Your task to perform on an android device: Search for sushi restaurants on Maps Image 0: 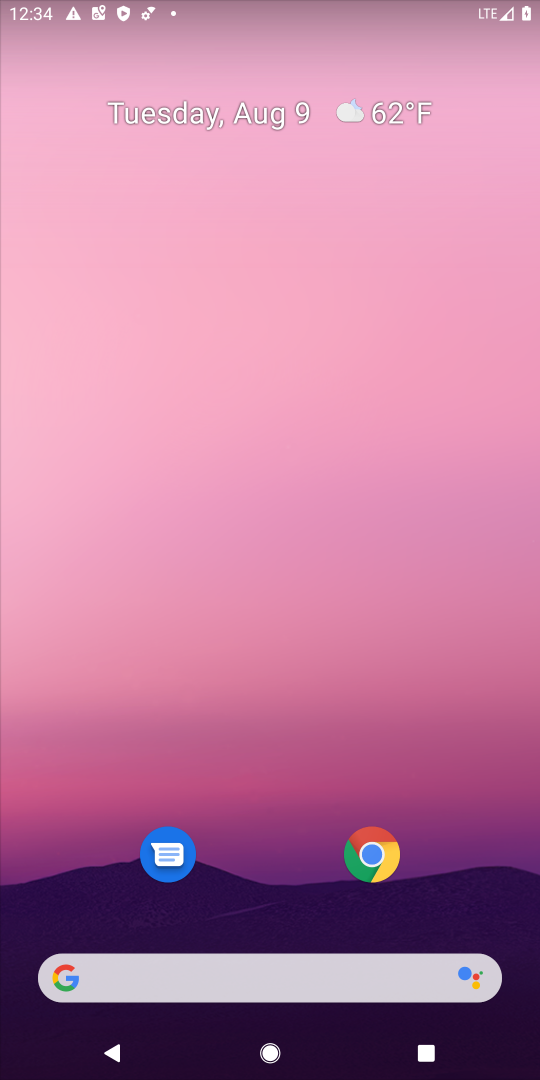
Step 0: drag from (261, 894) to (357, 7)
Your task to perform on an android device: Search for sushi restaurants on Maps Image 1: 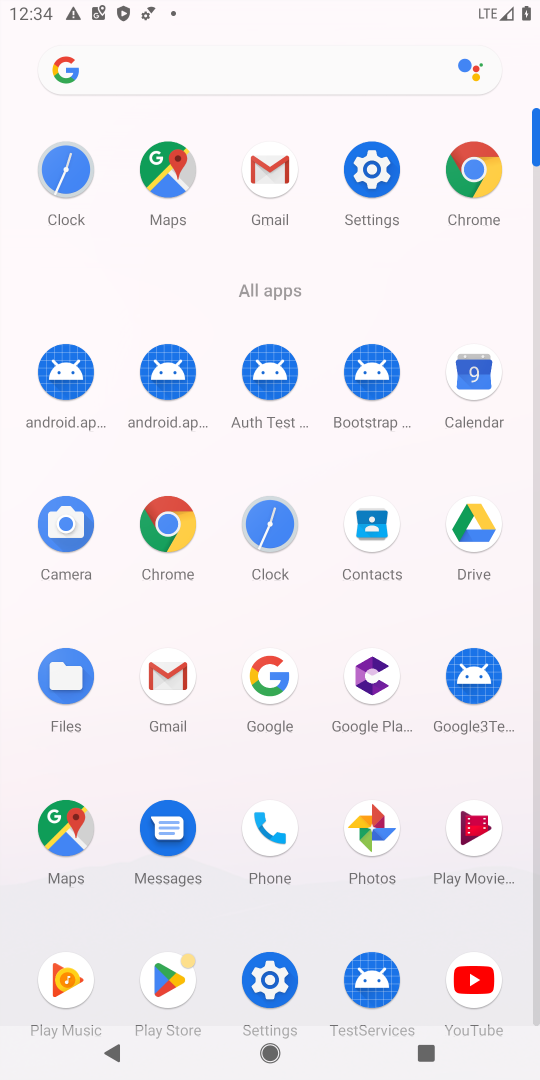
Step 1: click (172, 173)
Your task to perform on an android device: Search for sushi restaurants on Maps Image 2: 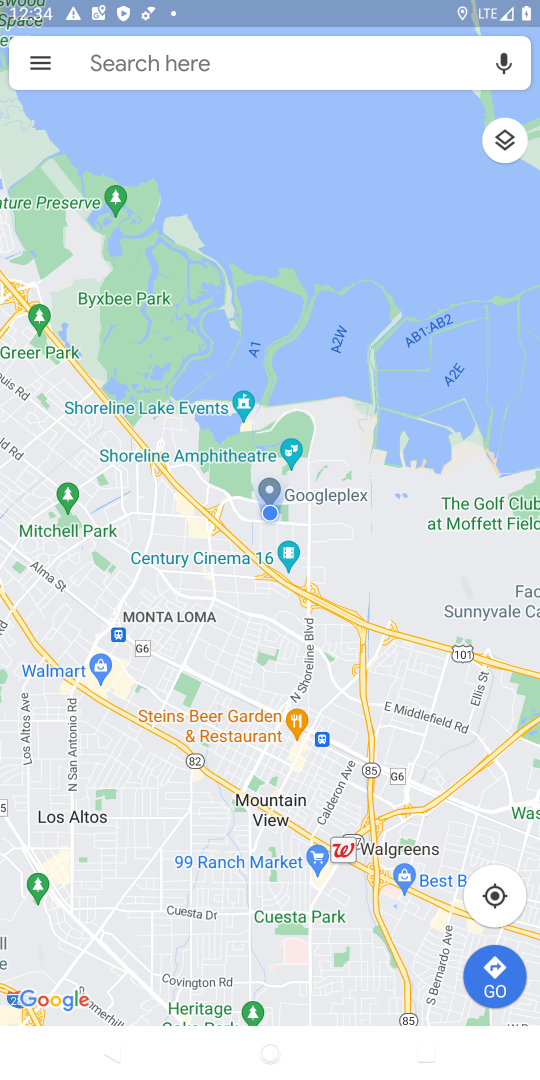
Step 2: click (169, 53)
Your task to perform on an android device: Search for sushi restaurants on Maps Image 3: 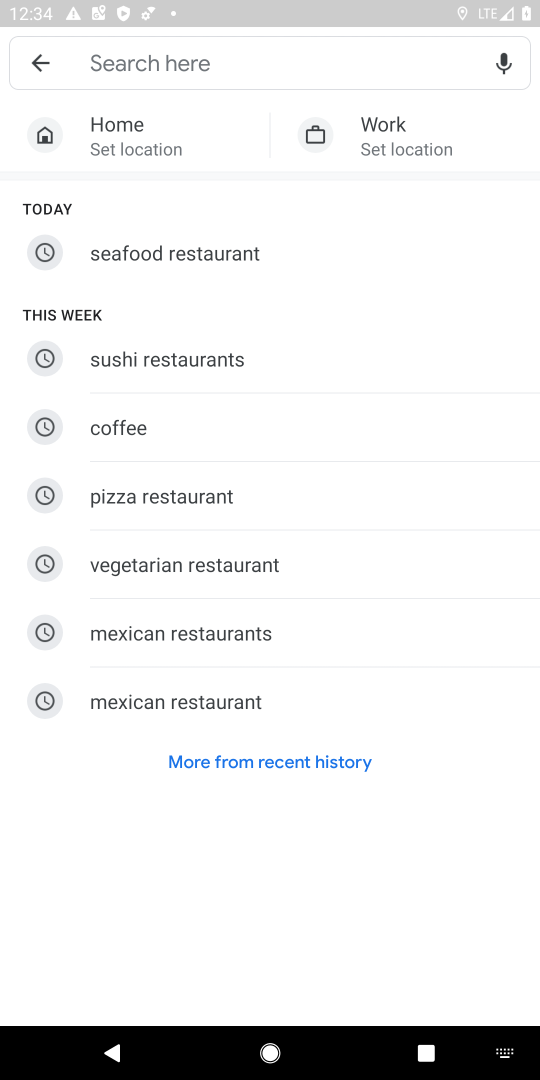
Step 3: click (153, 358)
Your task to perform on an android device: Search for sushi restaurants on Maps Image 4: 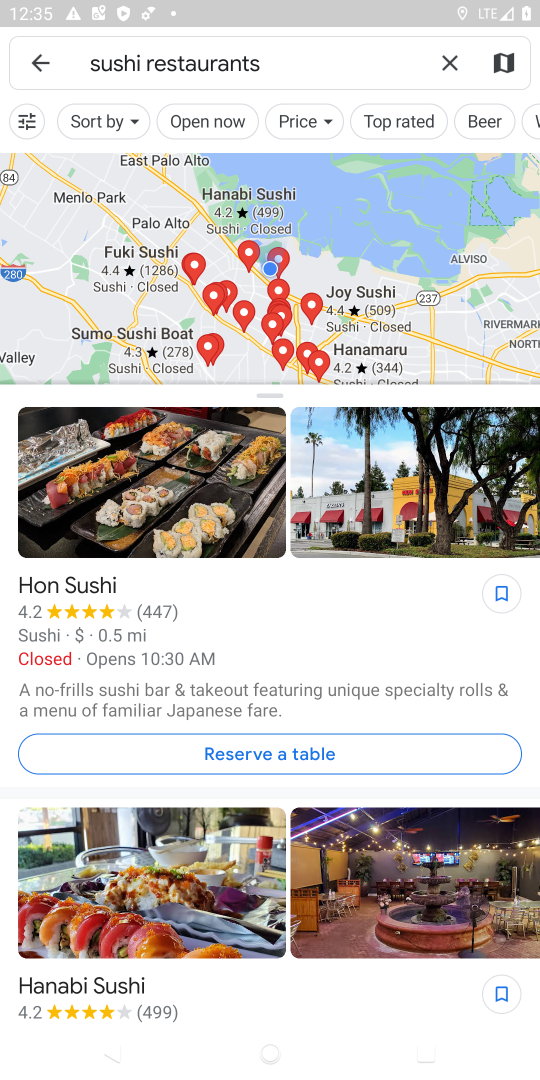
Step 4: task complete